Your task to perform on an android device: Open calendar and show me the second week of next month Image 0: 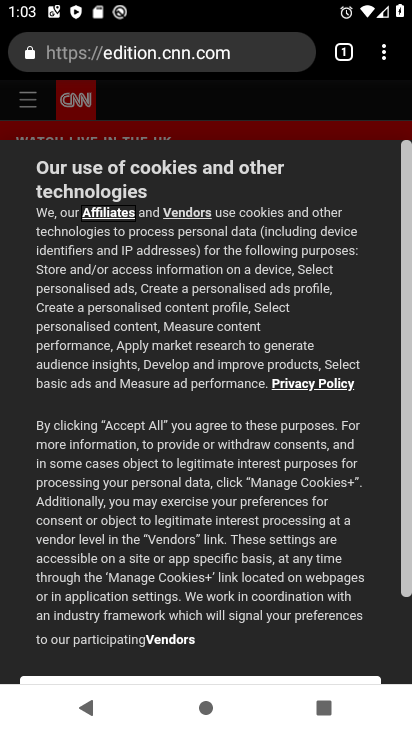
Step 0: task complete